Your task to perform on an android device: Go to CNN.com Image 0: 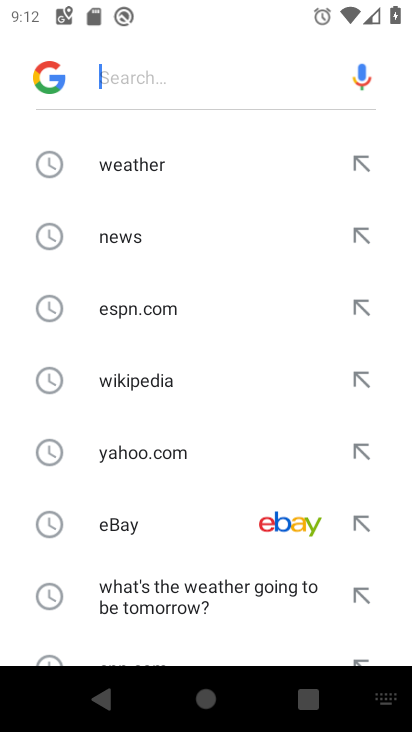
Step 0: press back button
Your task to perform on an android device: Go to CNN.com Image 1: 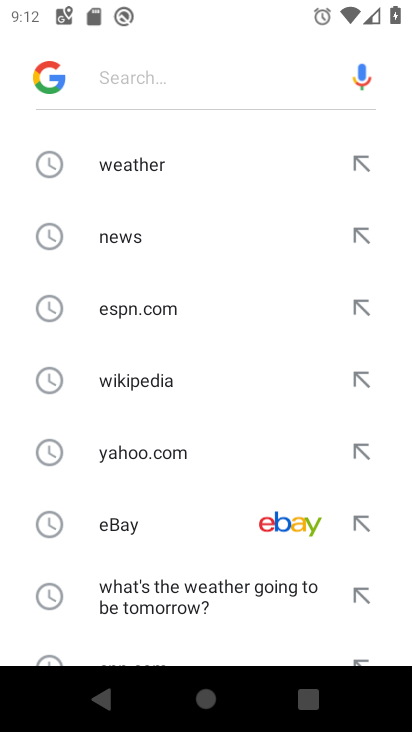
Step 1: press back button
Your task to perform on an android device: Go to CNN.com Image 2: 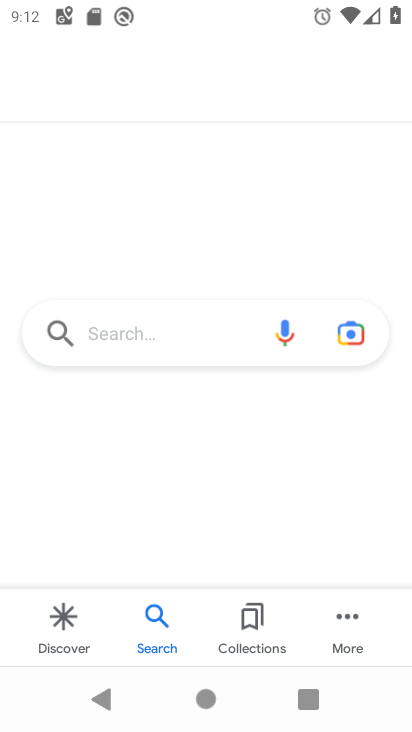
Step 2: press back button
Your task to perform on an android device: Go to CNN.com Image 3: 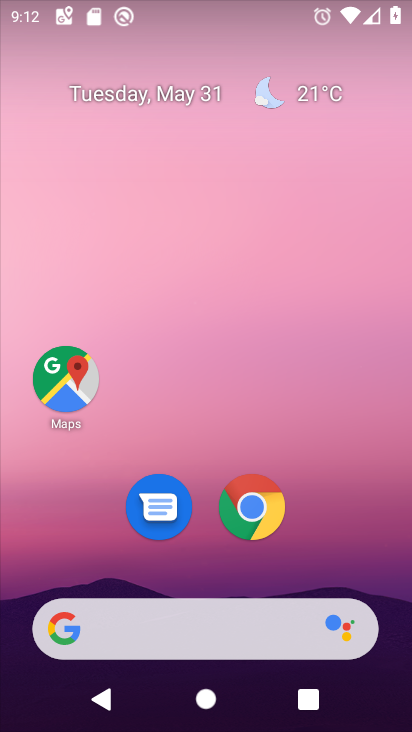
Step 3: press home button
Your task to perform on an android device: Go to CNN.com Image 4: 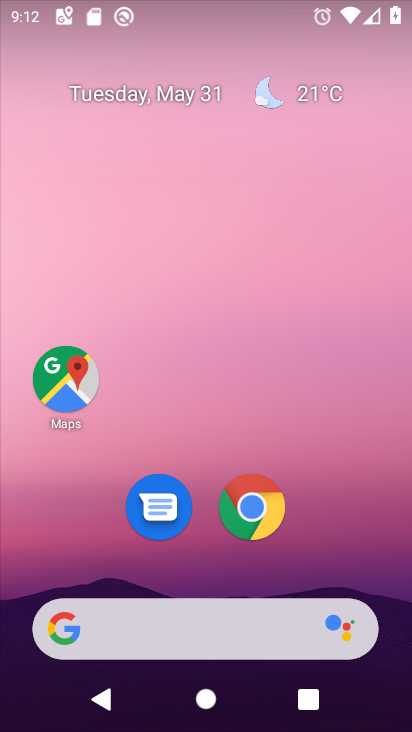
Step 4: drag from (258, 692) to (192, 205)
Your task to perform on an android device: Go to CNN.com Image 5: 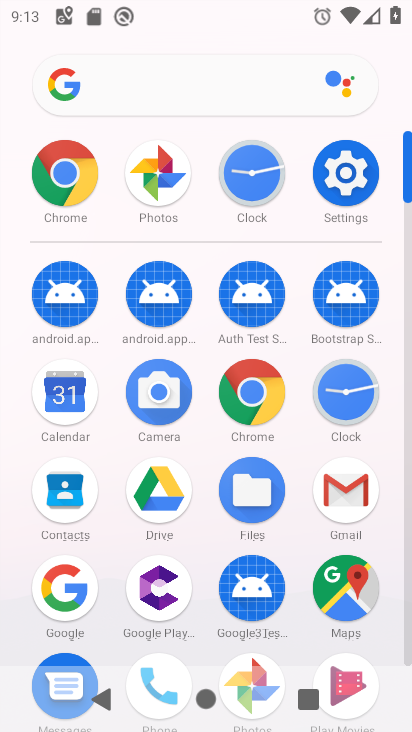
Step 5: click (247, 389)
Your task to perform on an android device: Go to CNN.com Image 6: 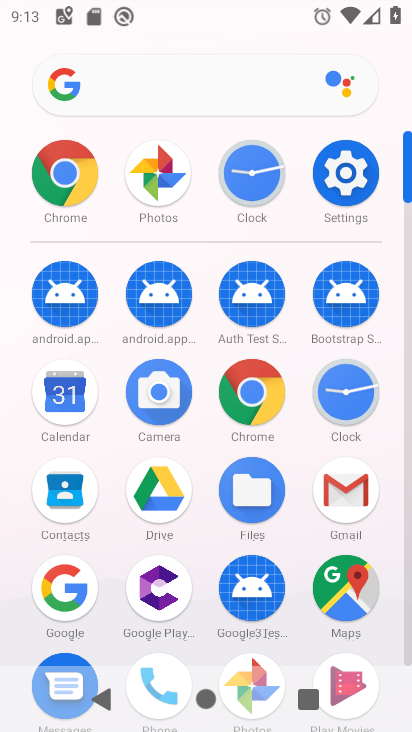
Step 6: click (247, 389)
Your task to perform on an android device: Go to CNN.com Image 7: 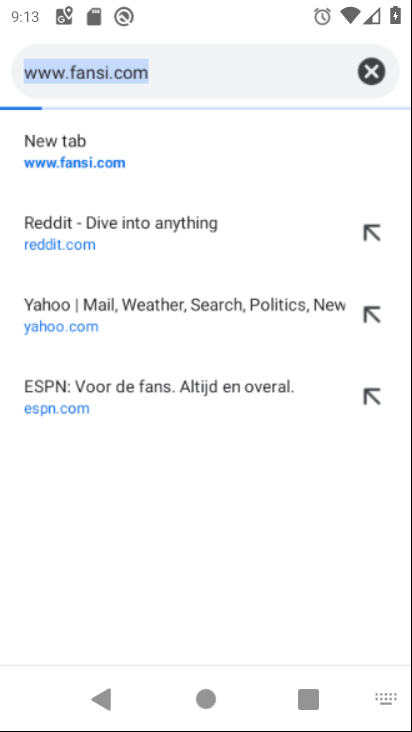
Step 7: click (368, 65)
Your task to perform on an android device: Go to CNN.com Image 8: 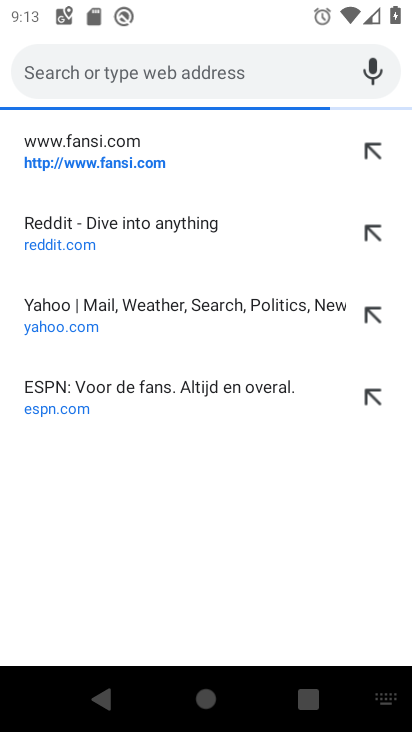
Step 8: type "cnn.com"
Your task to perform on an android device: Go to CNN.com Image 9: 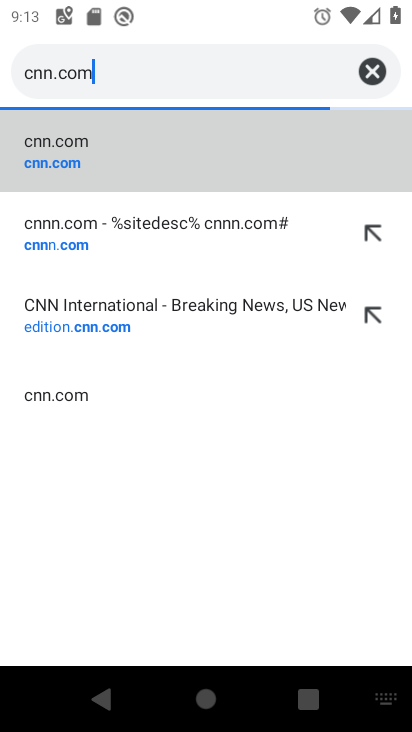
Step 9: click (40, 156)
Your task to perform on an android device: Go to CNN.com Image 10: 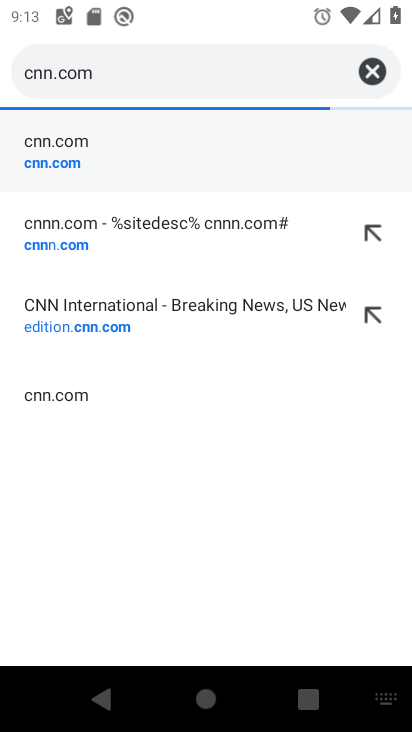
Step 10: click (44, 157)
Your task to perform on an android device: Go to CNN.com Image 11: 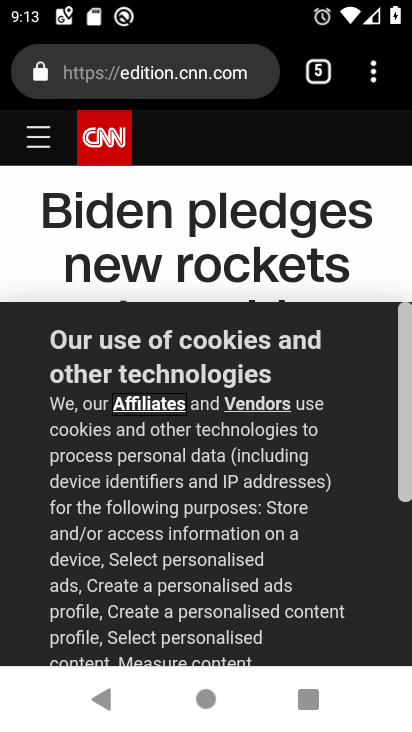
Step 11: task complete